Your task to perform on an android device: install app "File Manager" Image 0: 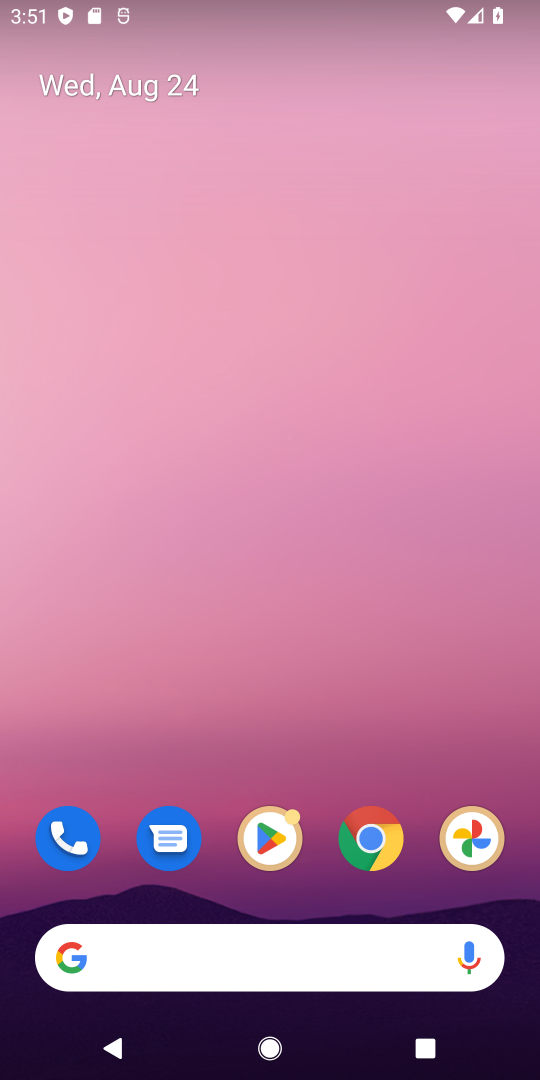
Step 0: press home button
Your task to perform on an android device: install app "File Manager" Image 1: 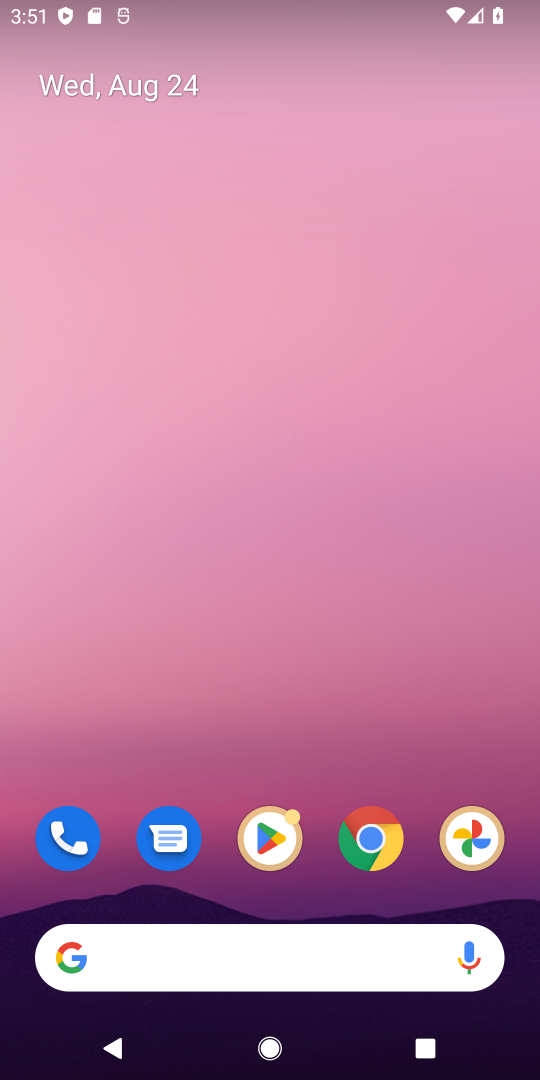
Step 1: click (257, 833)
Your task to perform on an android device: install app "File Manager" Image 2: 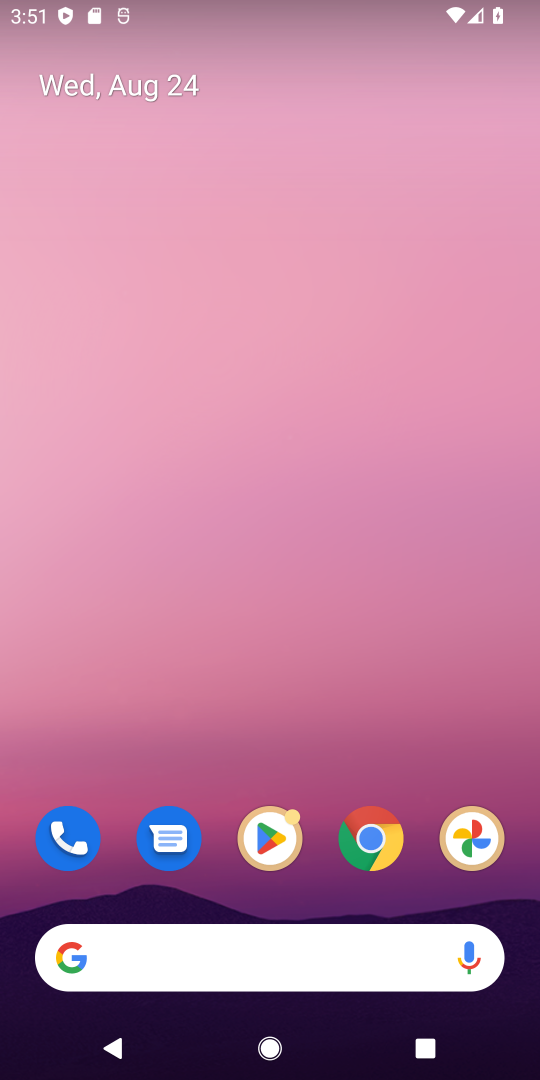
Step 2: click (267, 839)
Your task to perform on an android device: install app "File Manager" Image 3: 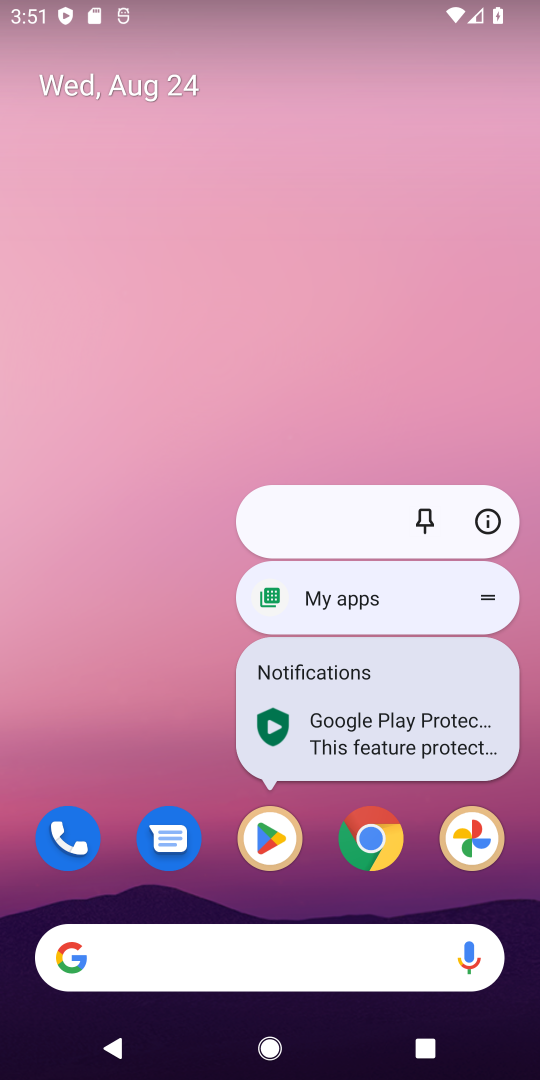
Step 3: click (267, 822)
Your task to perform on an android device: install app "File Manager" Image 4: 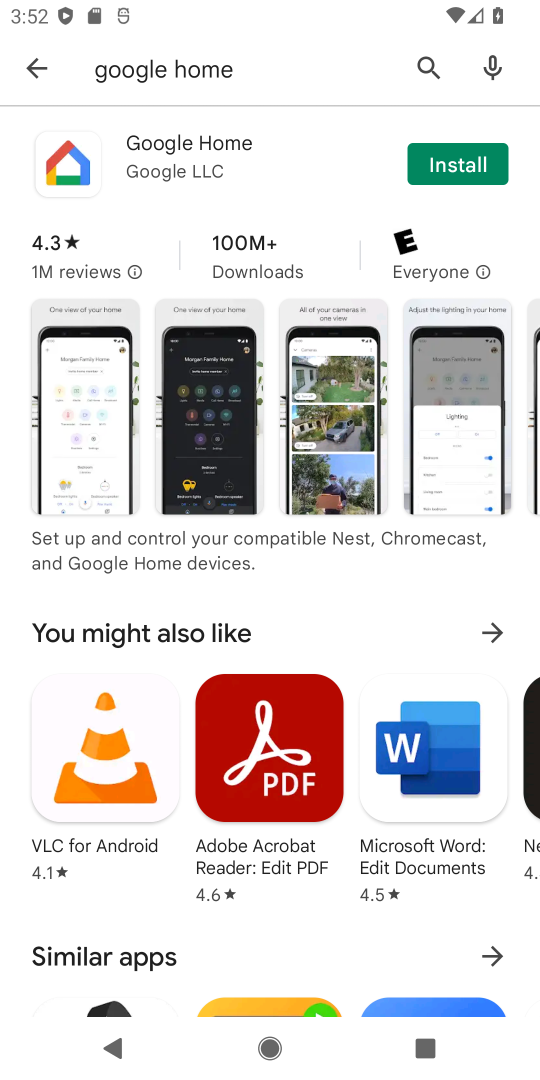
Step 4: click (424, 62)
Your task to perform on an android device: install app "File Manager" Image 5: 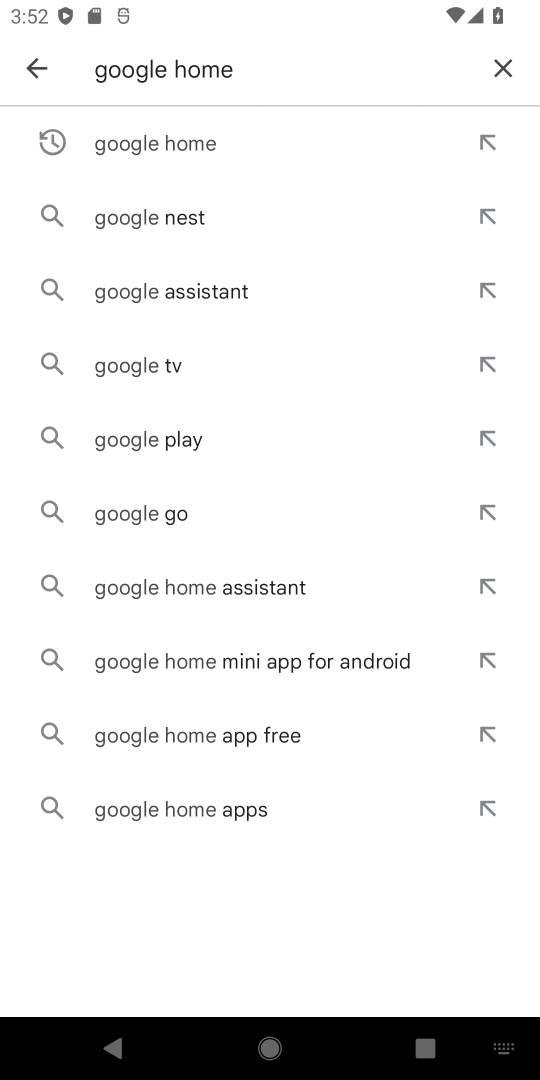
Step 5: click (501, 68)
Your task to perform on an android device: install app "File Manager" Image 6: 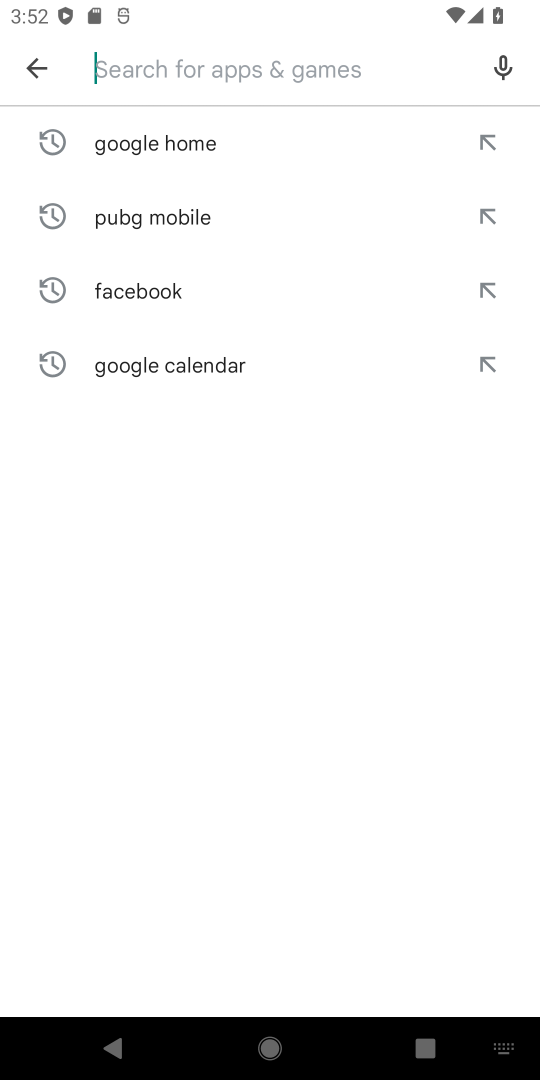
Step 6: type "File Manager"
Your task to perform on an android device: install app "File Manager" Image 7: 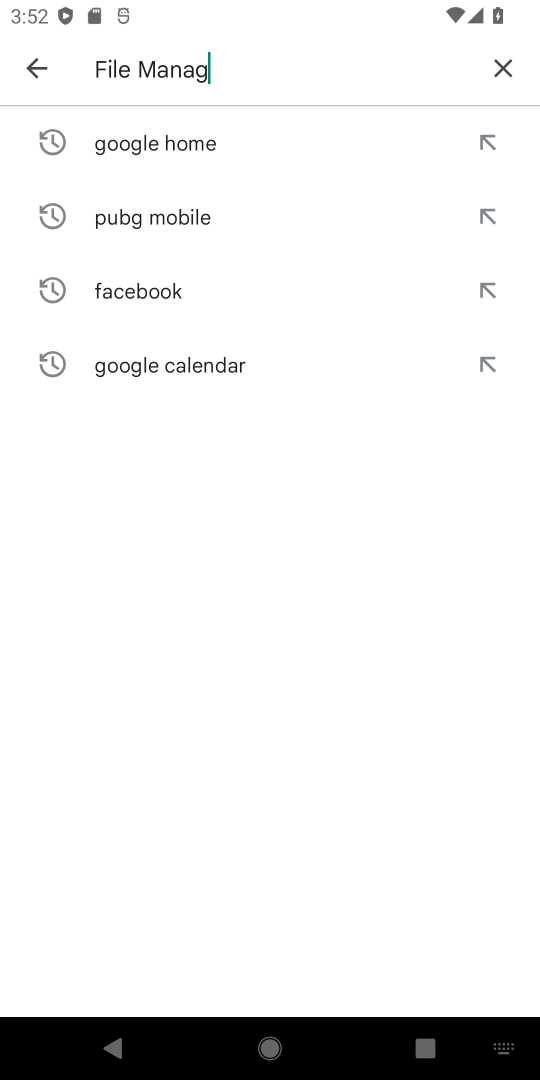
Step 7: type ""
Your task to perform on an android device: install app "File Manager" Image 8: 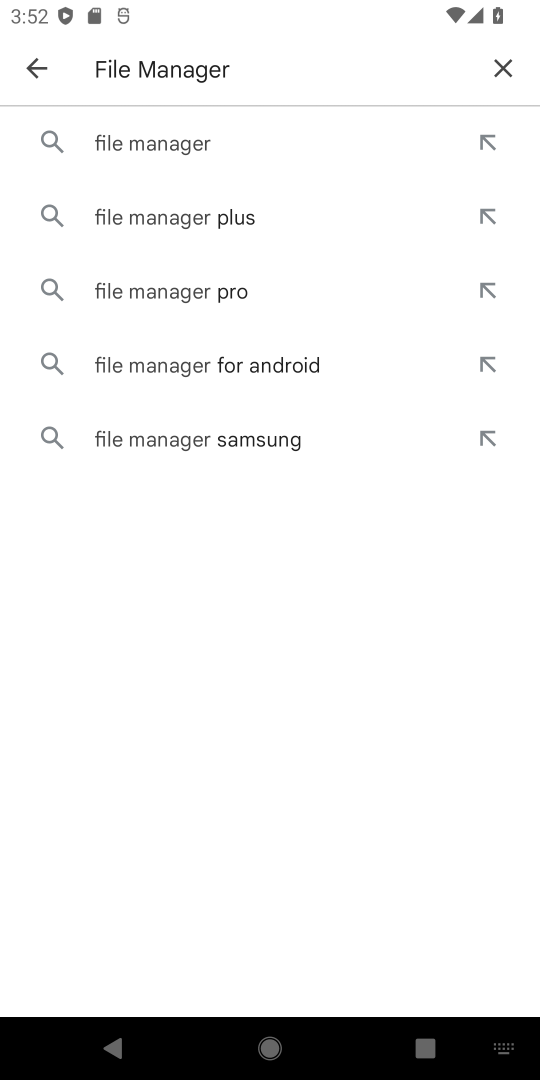
Step 8: click (225, 141)
Your task to perform on an android device: install app "File Manager" Image 9: 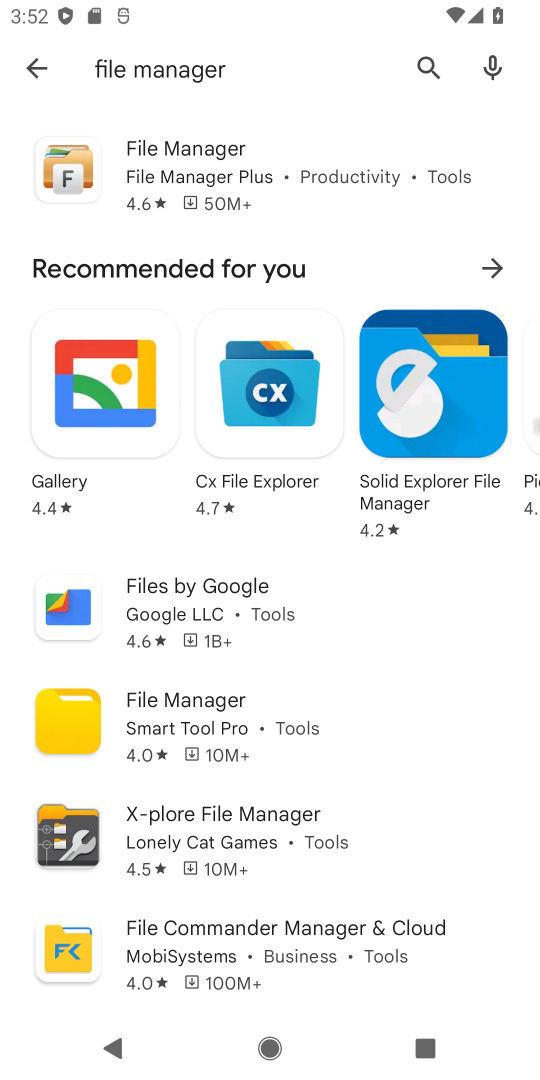
Step 9: click (227, 141)
Your task to perform on an android device: install app "File Manager" Image 10: 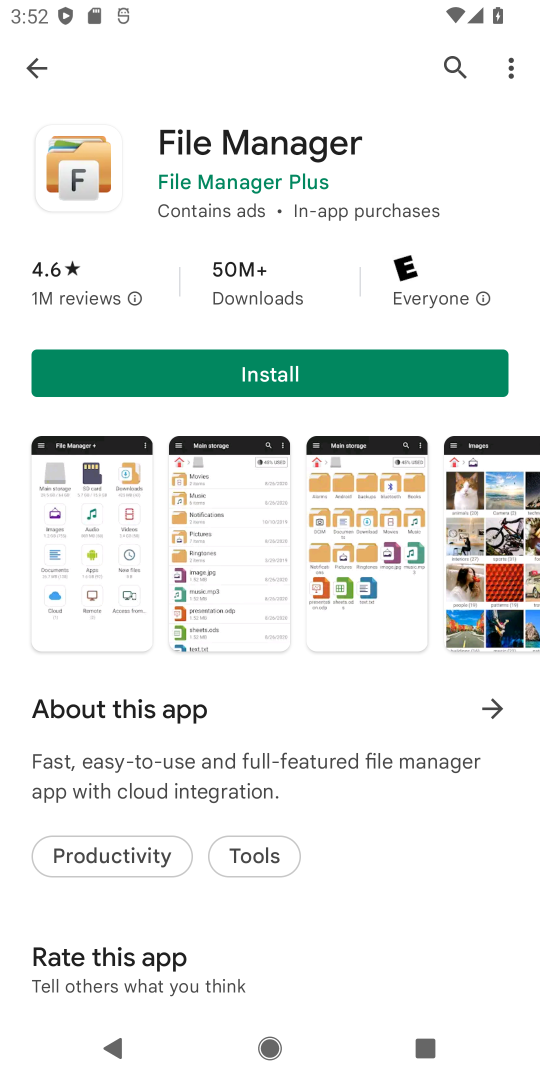
Step 10: click (262, 369)
Your task to perform on an android device: install app "File Manager" Image 11: 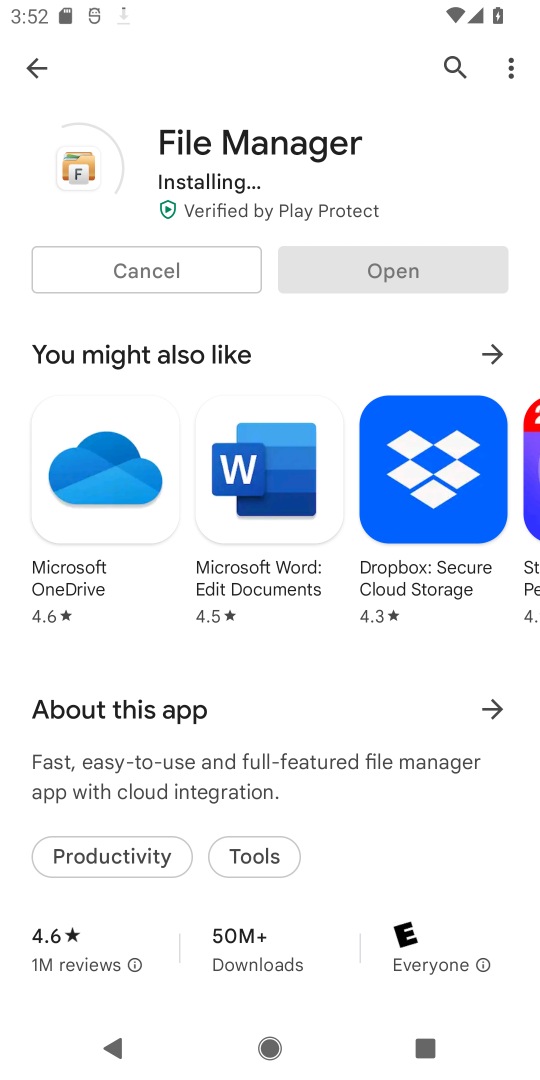
Step 11: task complete